Your task to perform on an android device: Open Google Image 0: 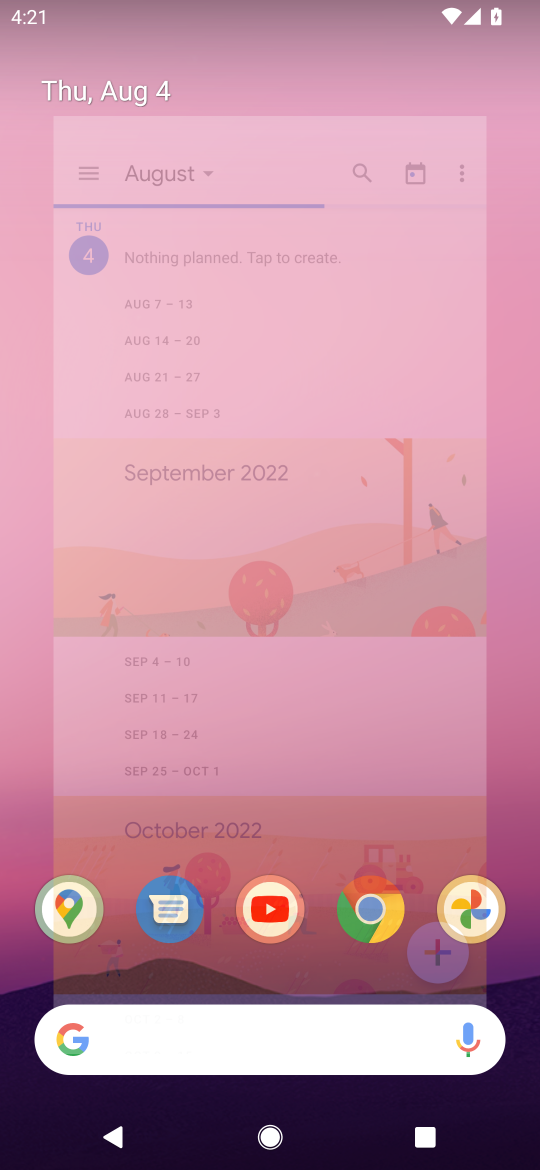
Step 0: press home button
Your task to perform on an android device: Open Google Image 1: 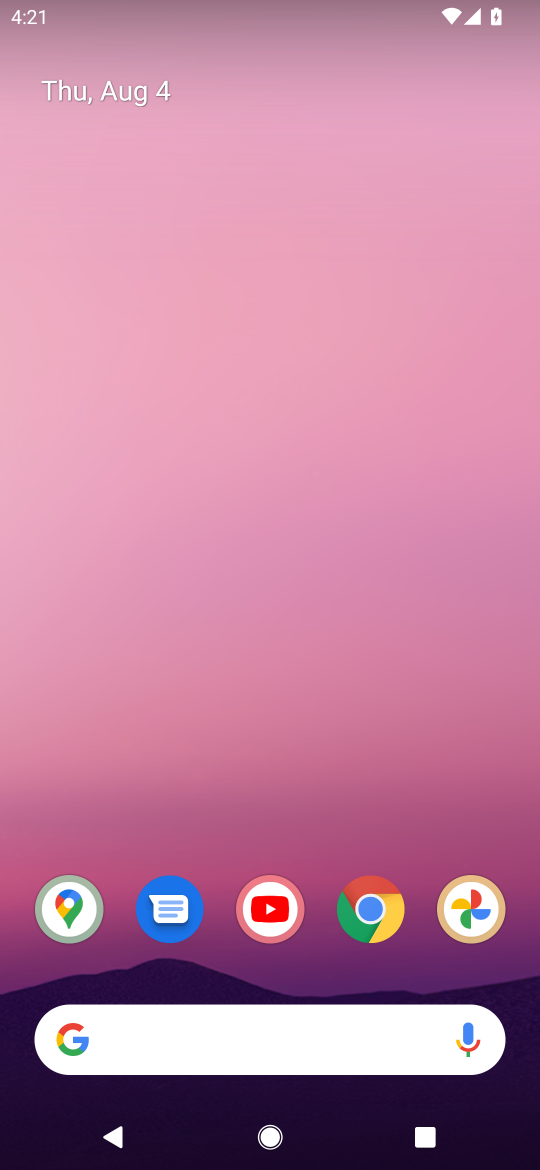
Step 1: drag from (344, 669) to (261, 43)
Your task to perform on an android device: Open Google Image 2: 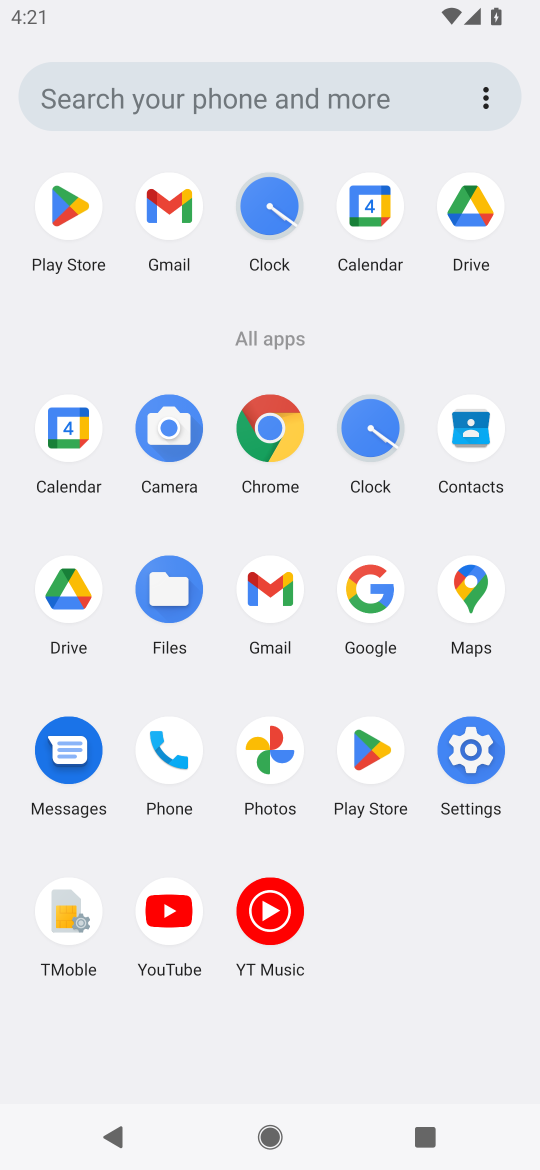
Step 2: click (388, 589)
Your task to perform on an android device: Open Google Image 3: 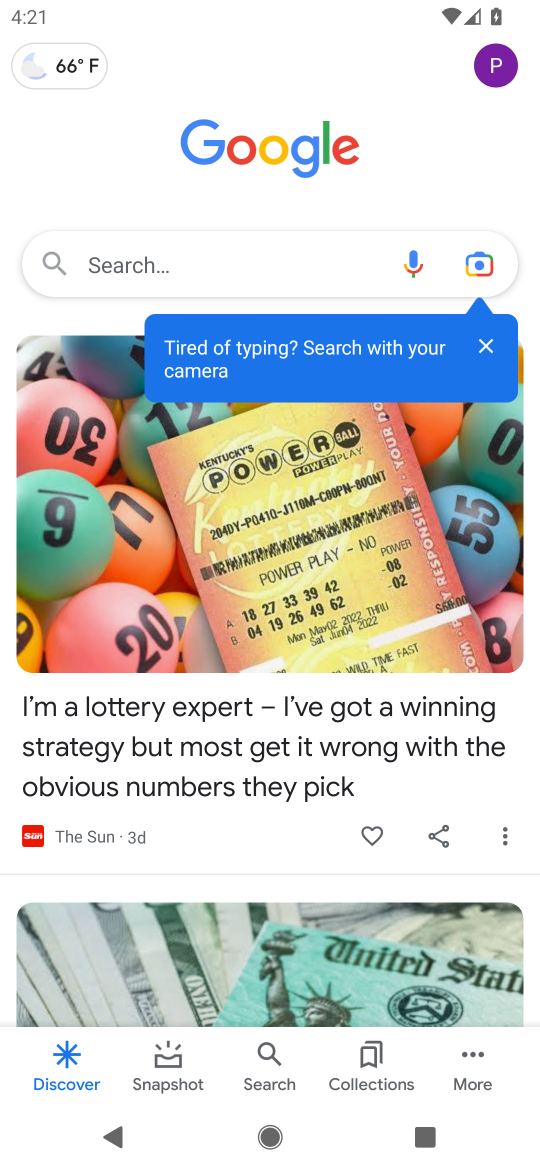
Step 3: task complete